Your task to perform on an android device: Clear all items from cart on bestbuy. Search for apple airpods on bestbuy, select the first entry, and add it to the cart. Image 0: 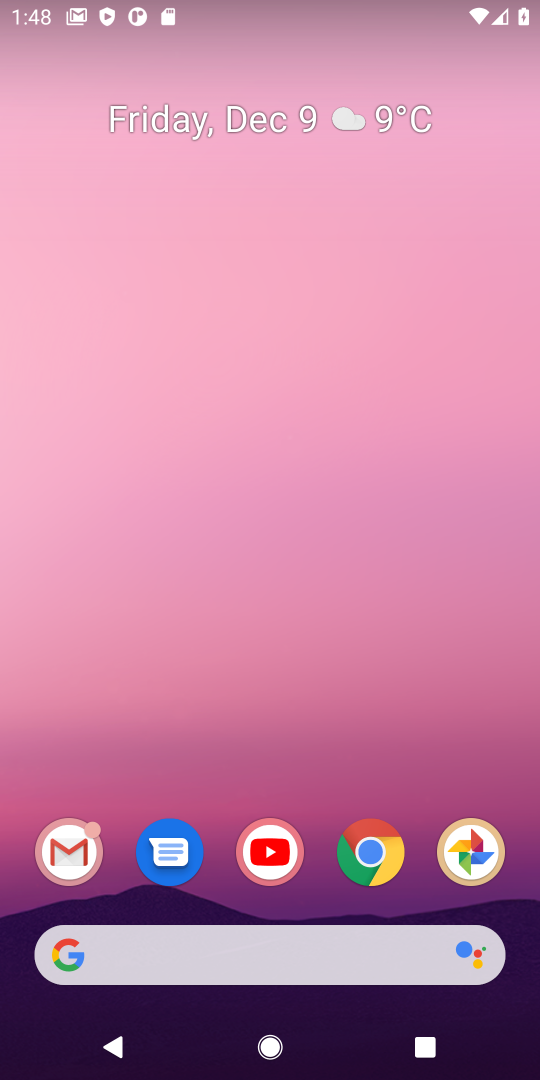
Step 0: click (378, 846)
Your task to perform on an android device: Clear all items from cart on bestbuy. Search for apple airpods on bestbuy, select the first entry, and add it to the cart. Image 1: 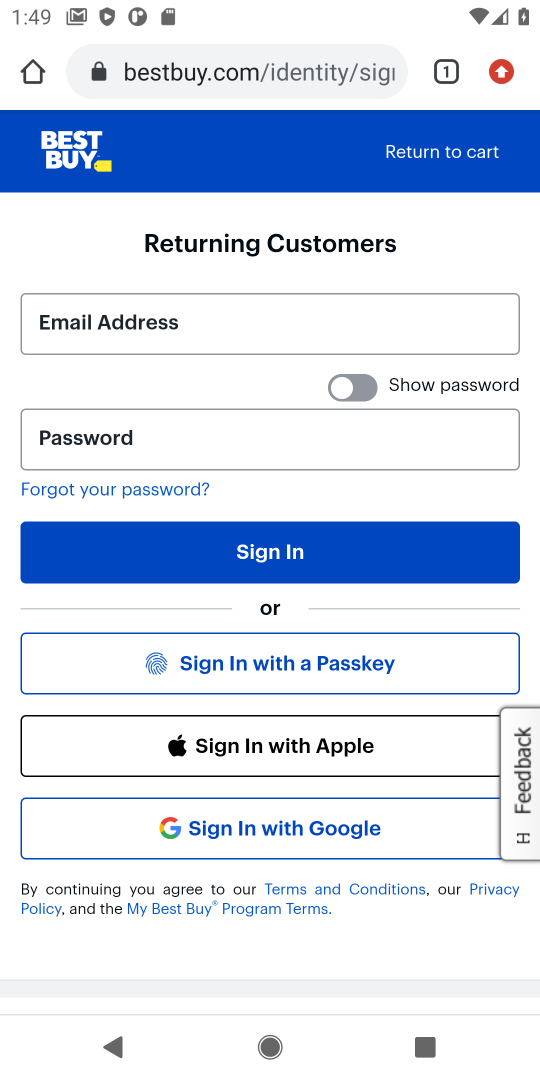
Step 1: press back button
Your task to perform on an android device: Clear all items from cart on bestbuy. Search for apple airpods on bestbuy, select the first entry, and add it to the cart. Image 2: 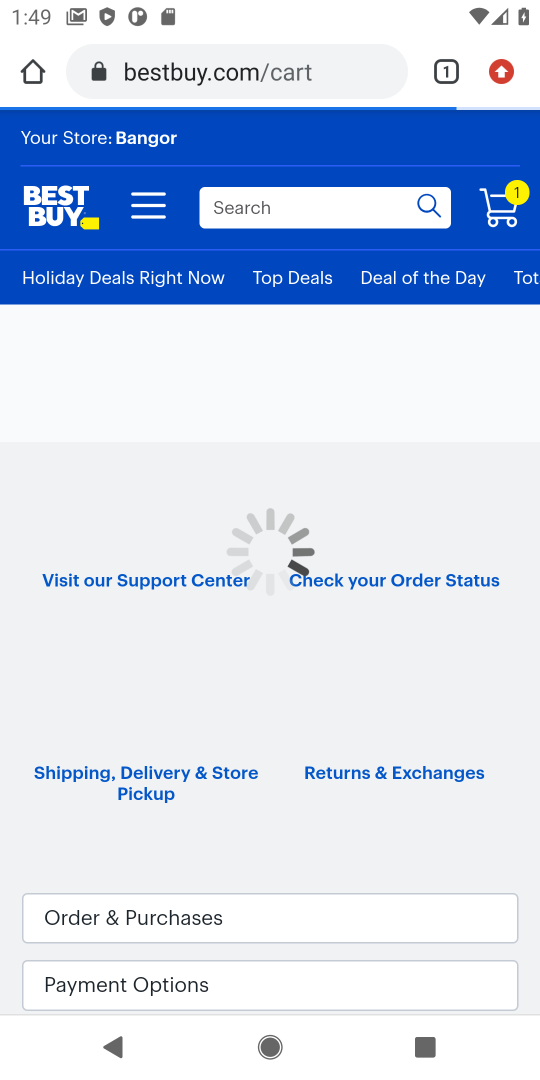
Step 2: click (504, 201)
Your task to perform on an android device: Clear all items from cart on bestbuy. Search for apple airpods on bestbuy, select the first entry, and add it to the cart. Image 3: 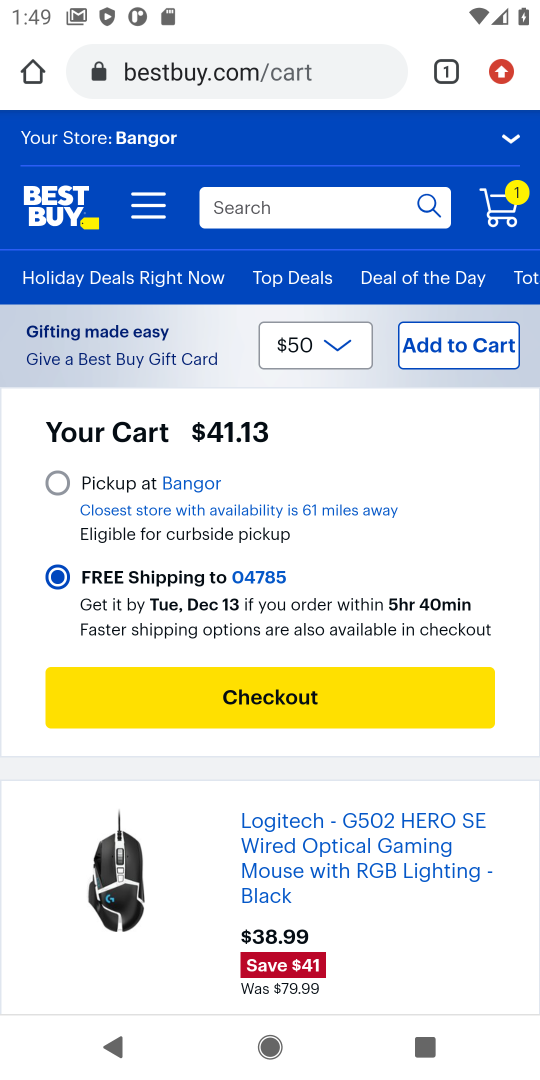
Step 3: drag from (445, 899) to (461, 463)
Your task to perform on an android device: Clear all items from cart on bestbuy. Search for apple airpods on bestbuy, select the first entry, and add it to the cart. Image 4: 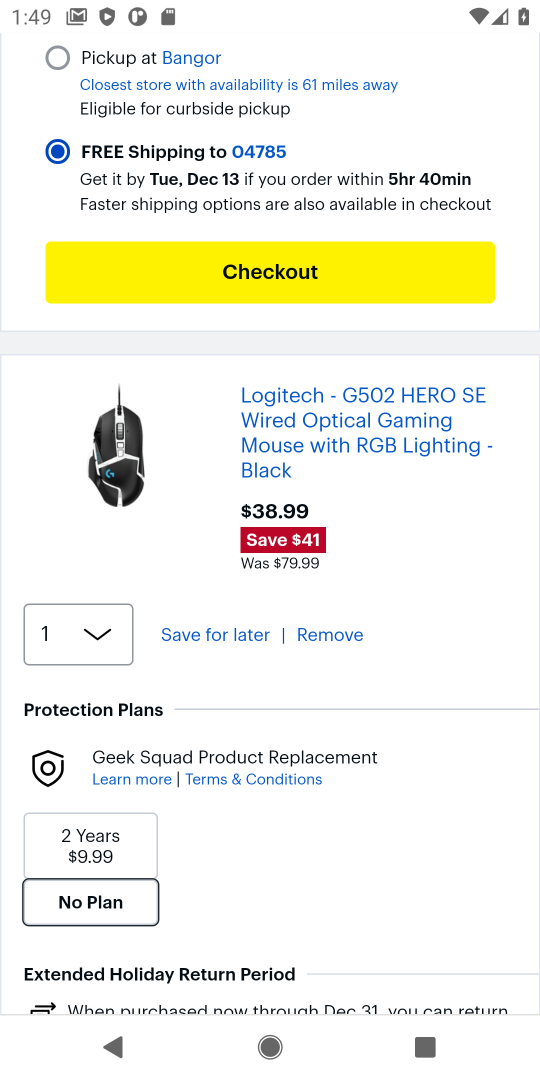
Step 4: click (336, 634)
Your task to perform on an android device: Clear all items from cart on bestbuy. Search for apple airpods on bestbuy, select the first entry, and add it to the cart. Image 5: 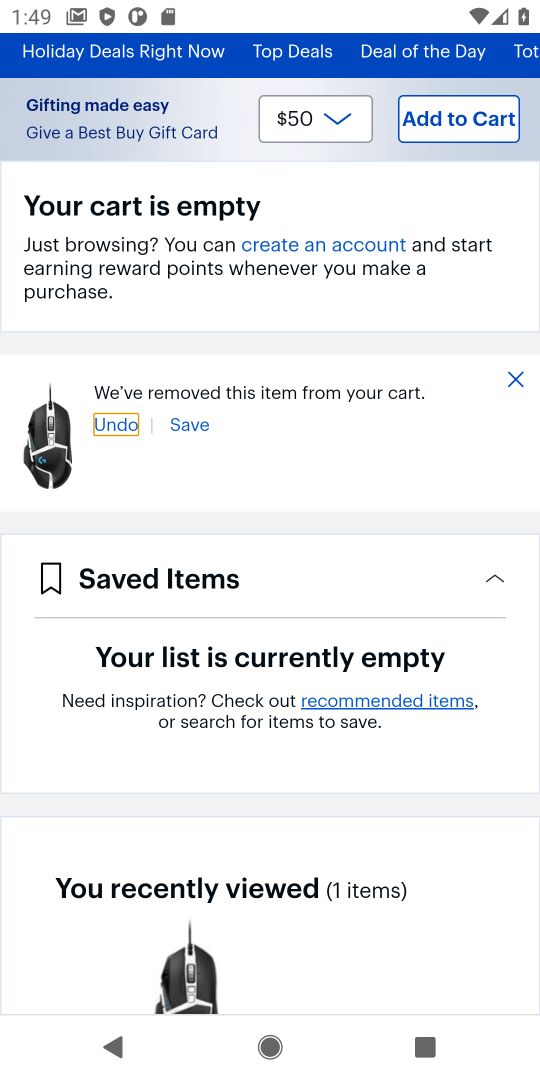
Step 5: click (518, 375)
Your task to perform on an android device: Clear all items from cart on bestbuy. Search for apple airpods on bestbuy, select the first entry, and add it to the cart. Image 6: 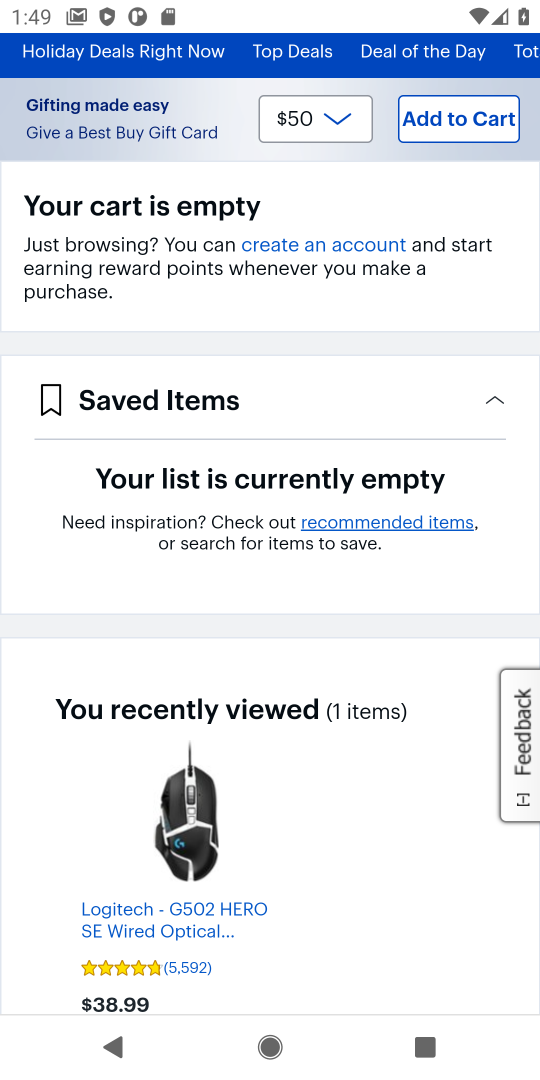
Step 6: drag from (415, 183) to (364, 943)
Your task to perform on an android device: Clear all items from cart on bestbuy. Search for apple airpods on bestbuy, select the first entry, and add it to the cart. Image 7: 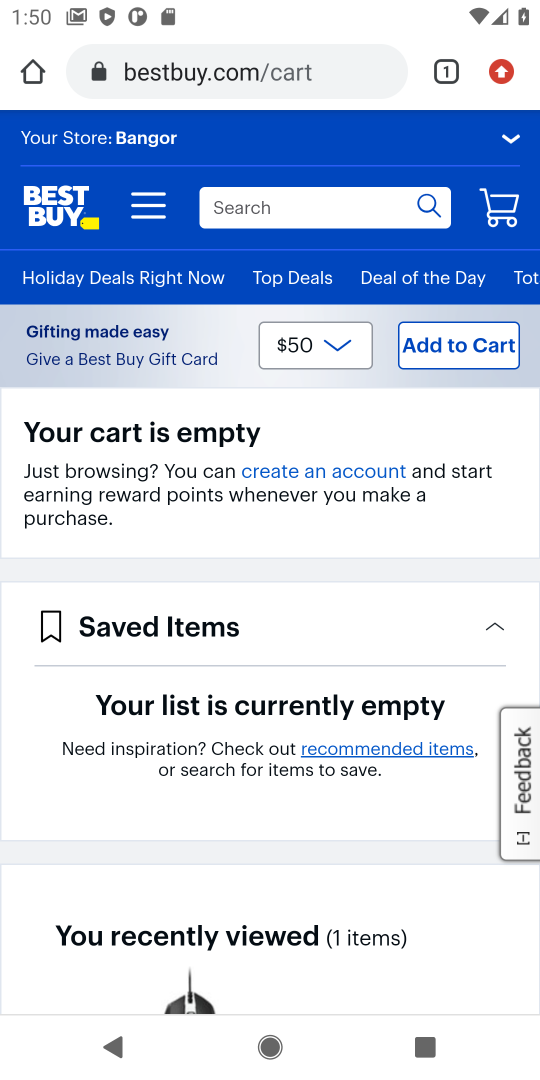
Step 7: click (291, 197)
Your task to perform on an android device: Clear all items from cart on bestbuy. Search for apple airpods on bestbuy, select the first entry, and add it to the cart. Image 8: 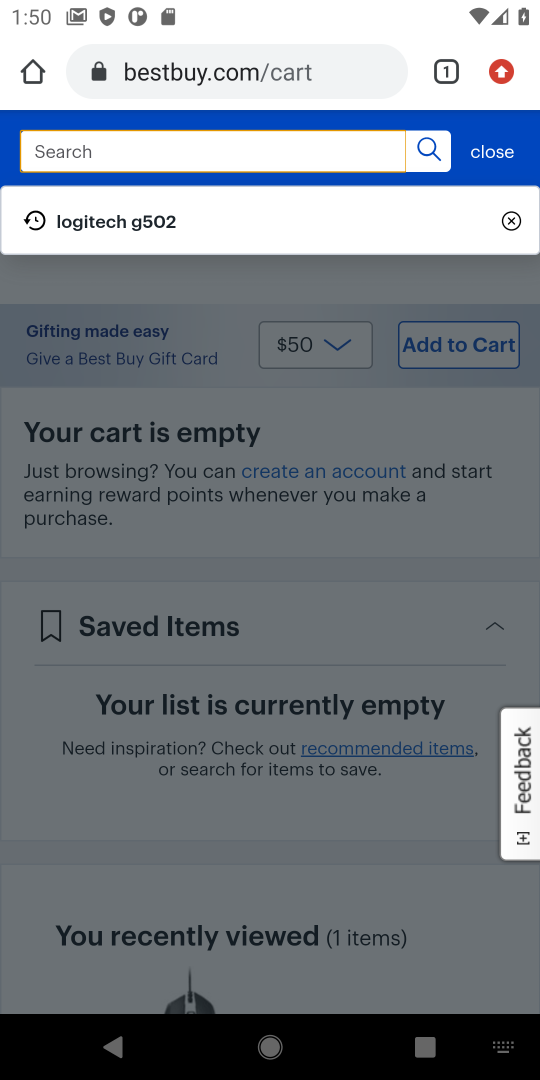
Step 8: type "apple airpods "
Your task to perform on an android device: Clear all items from cart on bestbuy. Search for apple airpods on bestbuy, select the first entry, and add it to the cart. Image 9: 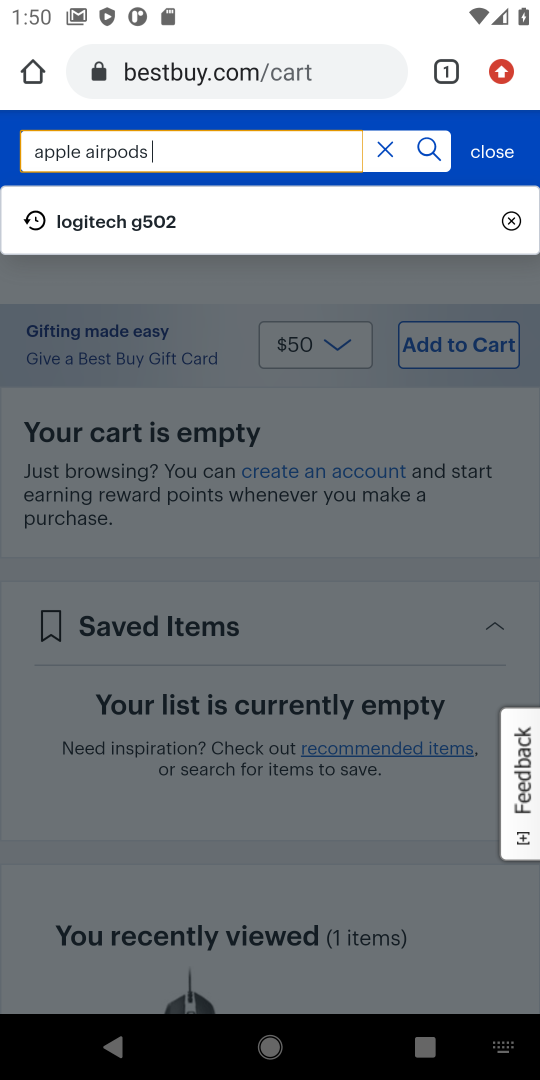
Step 9: press enter
Your task to perform on an android device: Clear all items from cart on bestbuy. Search for apple airpods on bestbuy, select the first entry, and add it to the cart. Image 10: 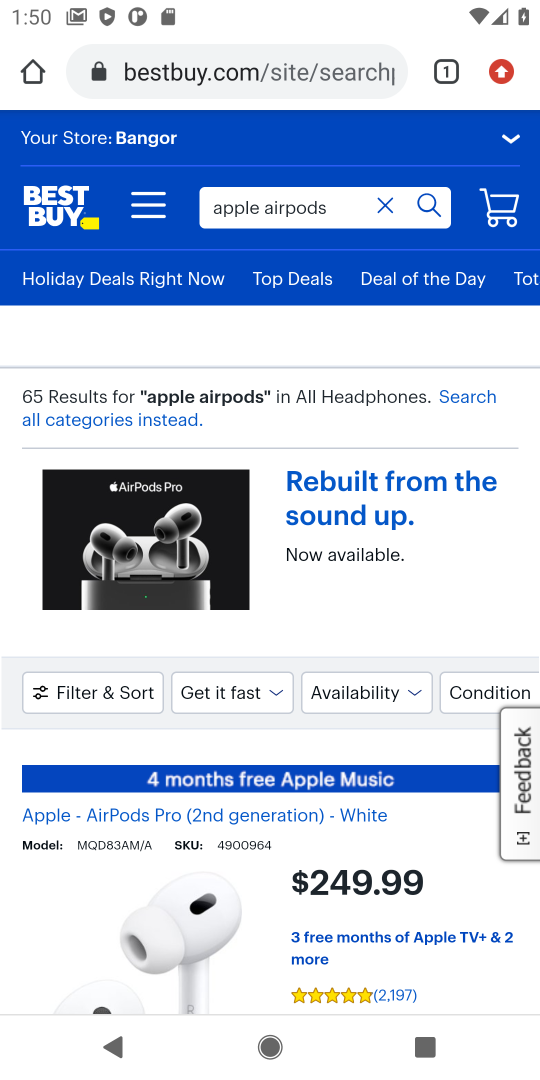
Step 10: drag from (257, 931) to (313, 528)
Your task to perform on an android device: Clear all items from cart on bestbuy. Search for apple airpods on bestbuy, select the first entry, and add it to the cart. Image 11: 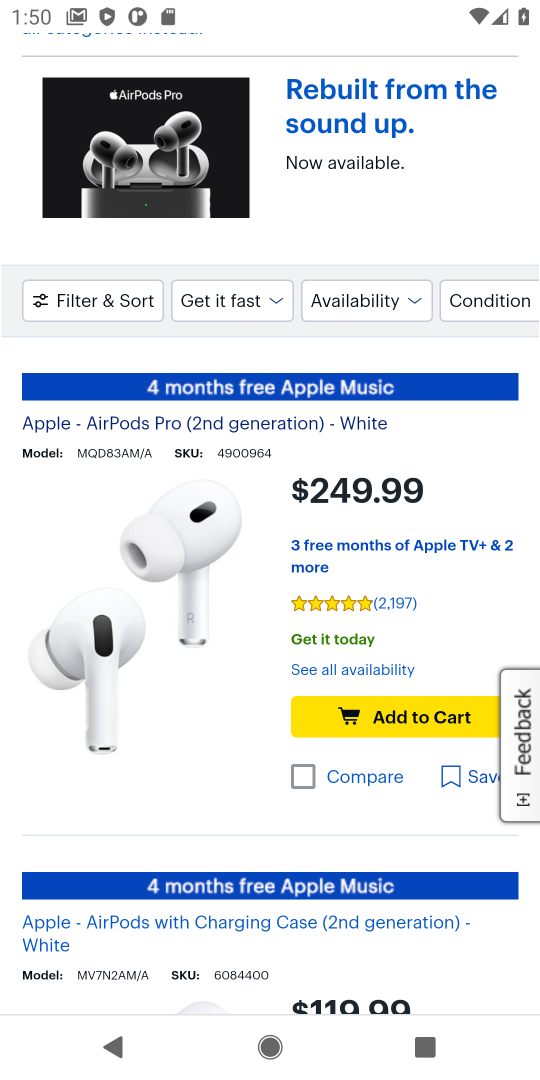
Step 11: click (137, 601)
Your task to perform on an android device: Clear all items from cart on bestbuy. Search for apple airpods on bestbuy, select the first entry, and add it to the cart. Image 12: 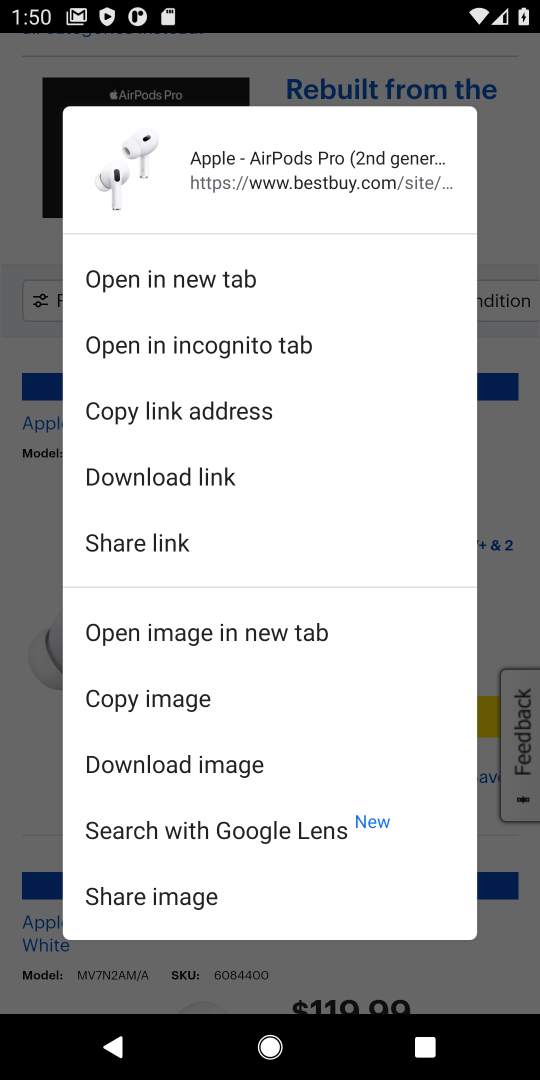
Step 12: click (26, 616)
Your task to perform on an android device: Clear all items from cart on bestbuy. Search for apple airpods on bestbuy, select the first entry, and add it to the cart. Image 13: 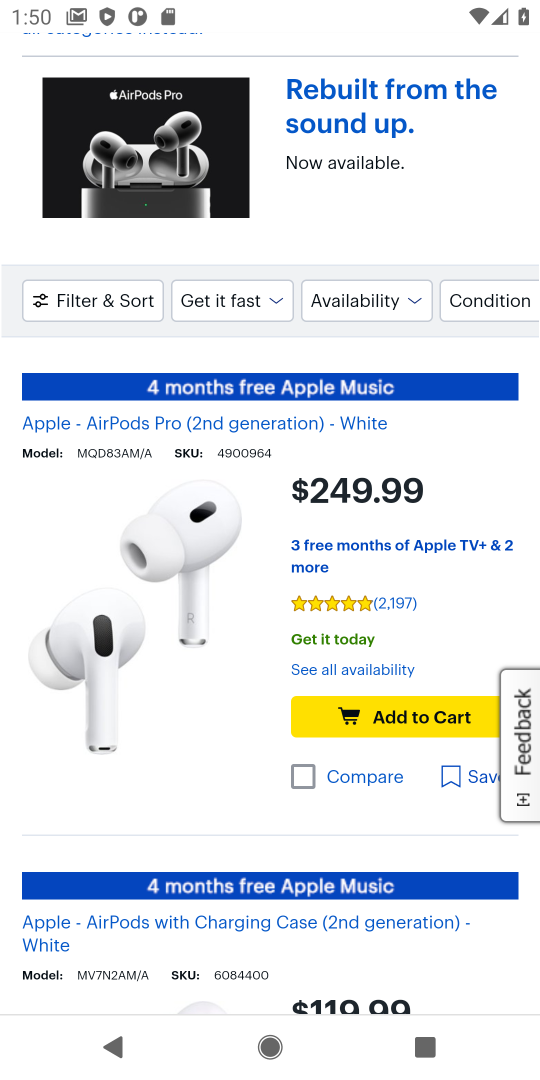
Step 13: click (153, 587)
Your task to perform on an android device: Clear all items from cart on bestbuy. Search for apple airpods on bestbuy, select the first entry, and add it to the cart. Image 14: 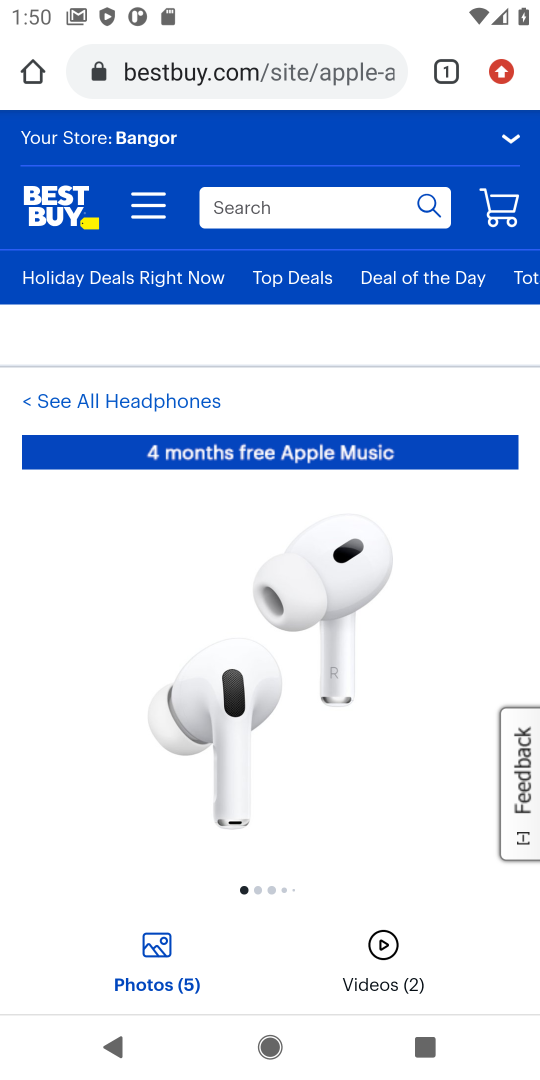
Step 14: drag from (382, 726) to (399, 439)
Your task to perform on an android device: Clear all items from cart on bestbuy. Search for apple airpods on bestbuy, select the first entry, and add it to the cart. Image 15: 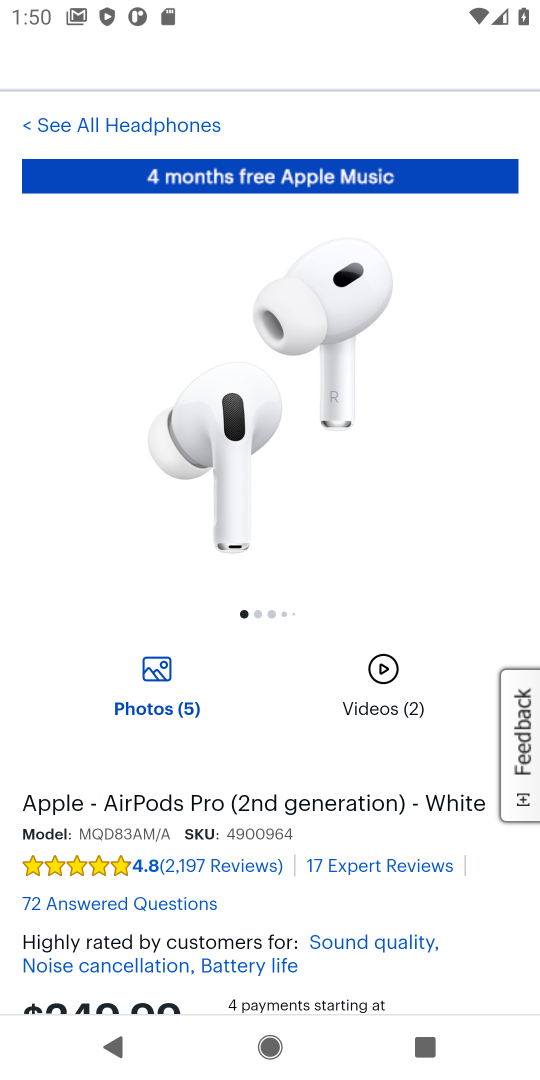
Step 15: drag from (458, 918) to (391, 642)
Your task to perform on an android device: Clear all items from cart on bestbuy. Search for apple airpods on bestbuy, select the first entry, and add it to the cart. Image 16: 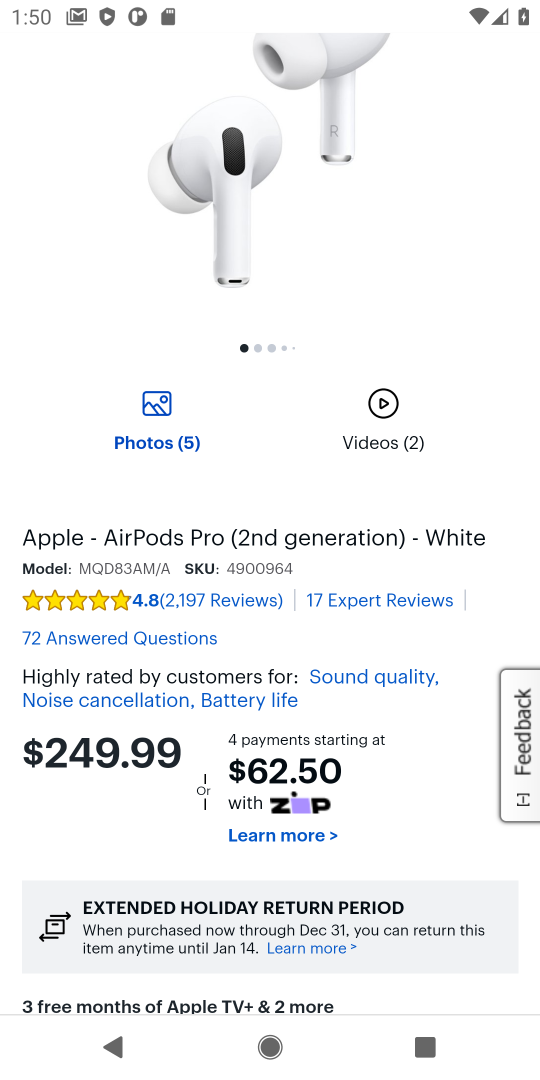
Step 16: drag from (412, 821) to (411, 465)
Your task to perform on an android device: Clear all items from cart on bestbuy. Search for apple airpods on bestbuy, select the first entry, and add it to the cart. Image 17: 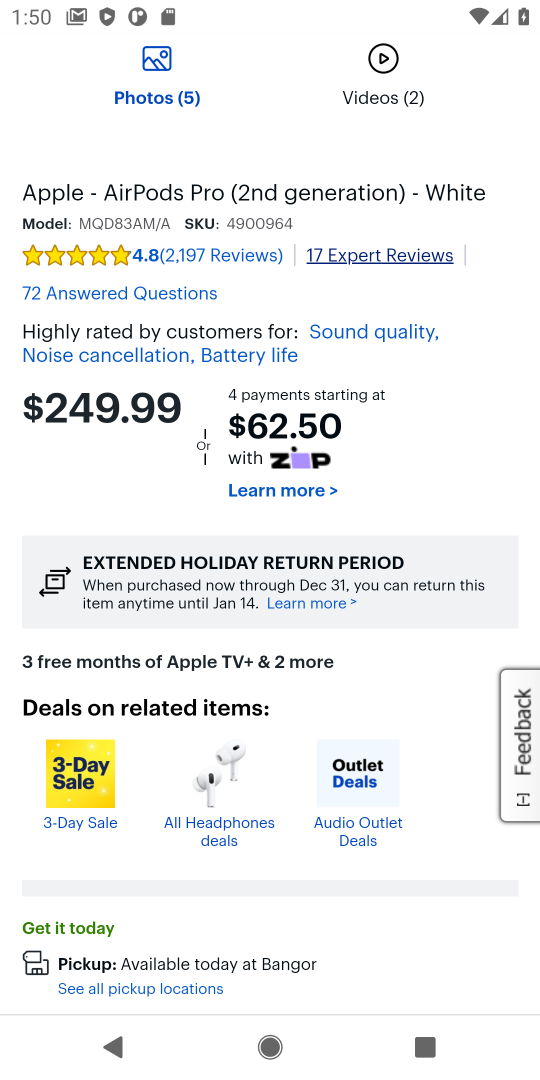
Step 17: drag from (430, 873) to (386, 439)
Your task to perform on an android device: Clear all items from cart on bestbuy. Search for apple airpods on bestbuy, select the first entry, and add it to the cart. Image 18: 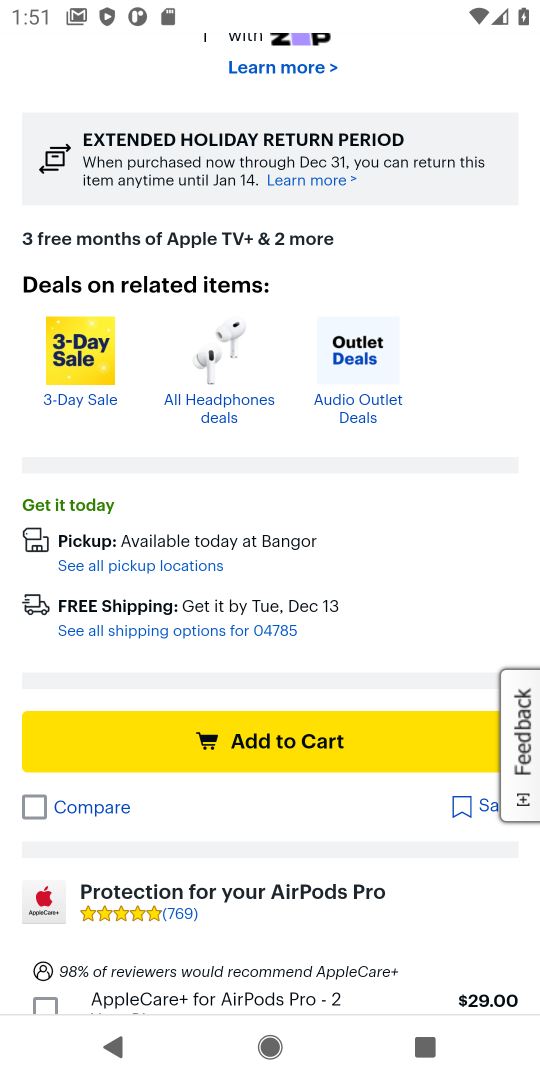
Step 18: click (285, 734)
Your task to perform on an android device: Clear all items from cart on bestbuy. Search for apple airpods on bestbuy, select the first entry, and add it to the cart. Image 19: 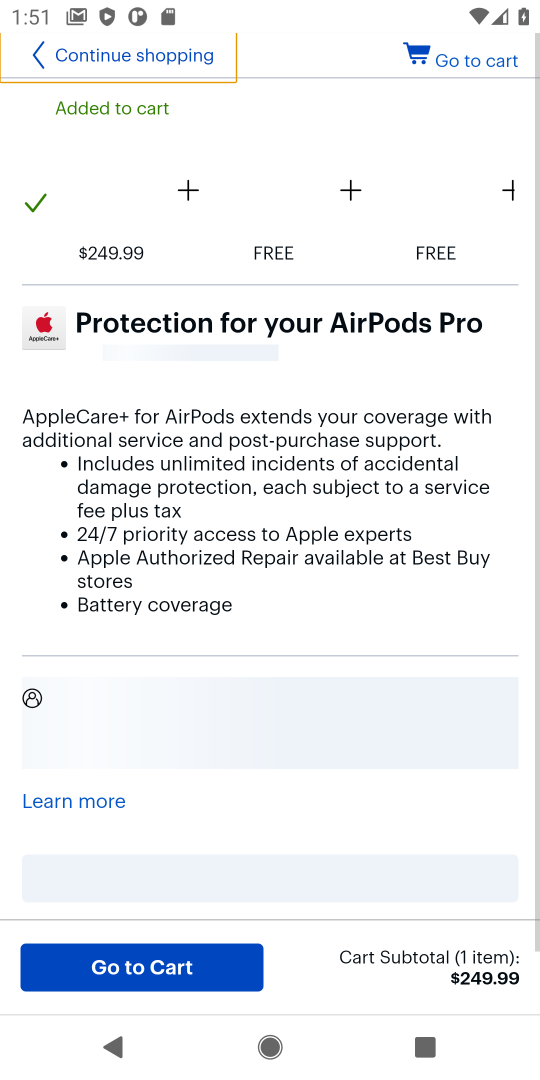
Step 19: click (131, 962)
Your task to perform on an android device: Clear all items from cart on bestbuy. Search for apple airpods on bestbuy, select the first entry, and add it to the cart. Image 20: 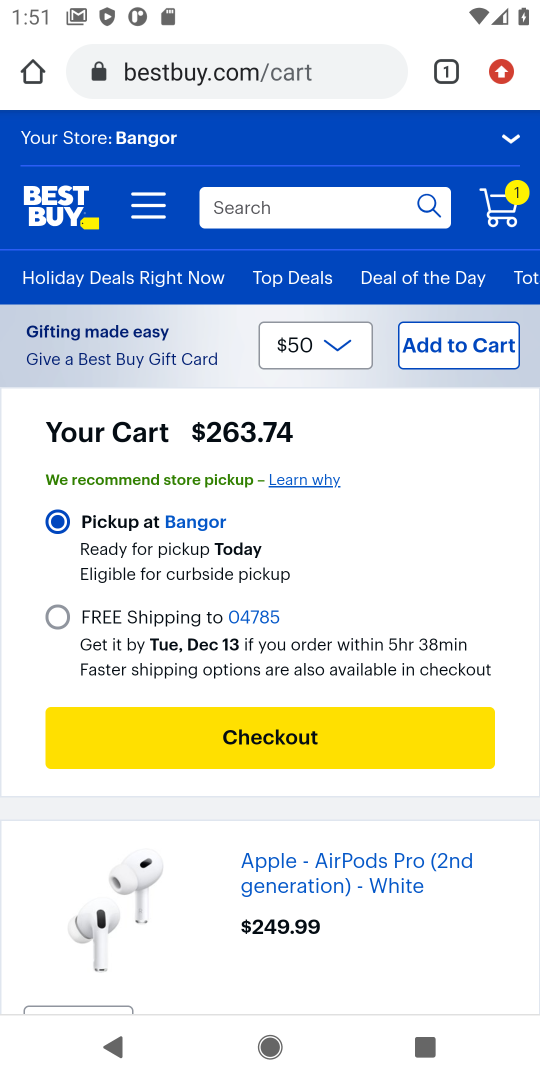
Step 20: task complete